Your task to perform on an android device: change text size in settings app Image 0: 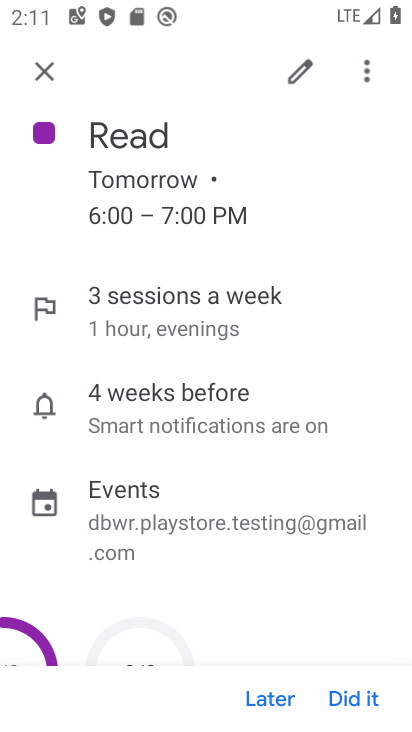
Step 0: press home button
Your task to perform on an android device: change text size in settings app Image 1: 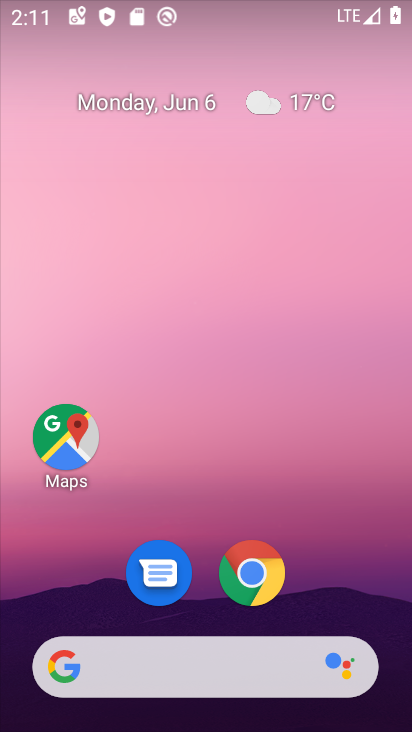
Step 1: drag from (351, 591) to (360, 190)
Your task to perform on an android device: change text size in settings app Image 2: 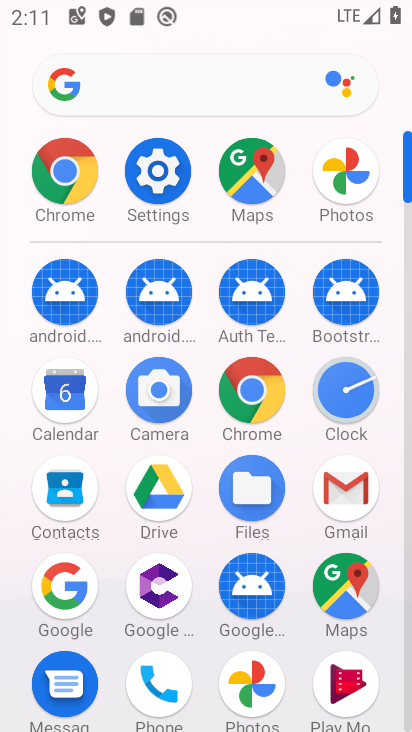
Step 2: click (152, 186)
Your task to perform on an android device: change text size in settings app Image 3: 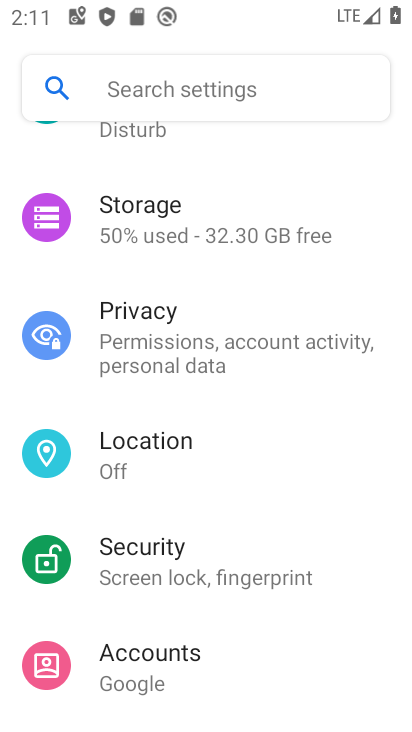
Step 3: drag from (336, 431) to (336, 479)
Your task to perform on an android device: change text size in settings app Image 4: 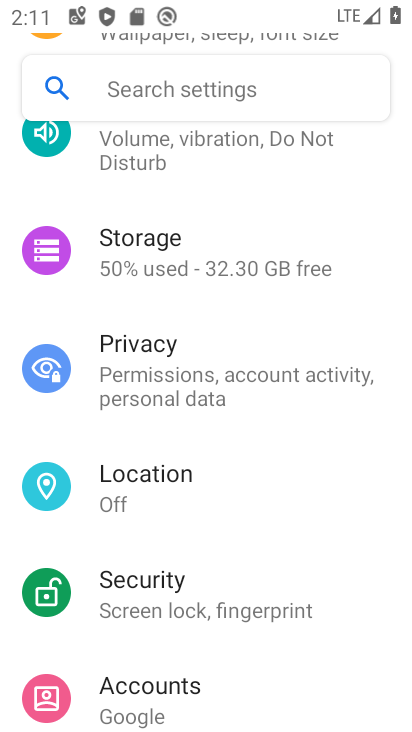
Step 4: drag from (358, 344) to (365, 541)
Your task to perform on an android device: change text size in settings app Image 5: 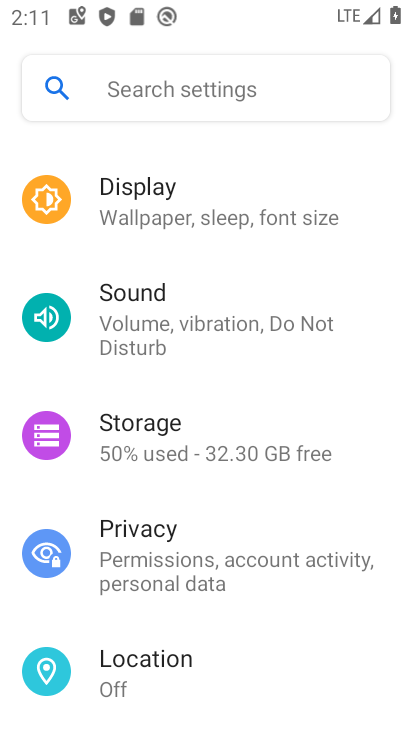
Step 5: drag from (351, 401) to (370, 577)
Your task to perform on an android device: change text size in settings app Image 6: 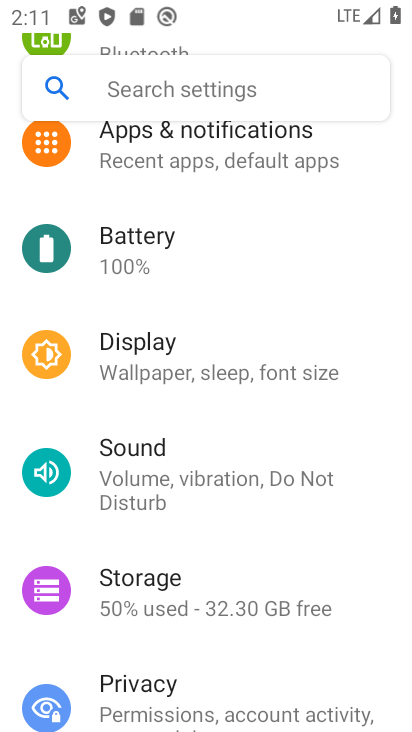
Step 6: drag from (373, 323) to (363, 547)
Your task to perform on an android device: change text size in settings app Image 7: 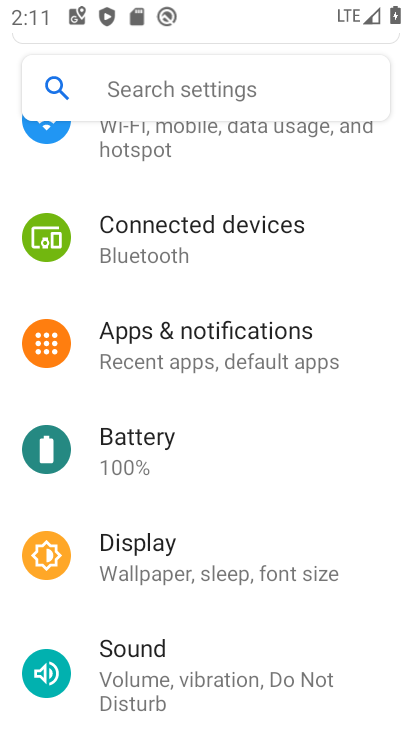
Step 7: click (253, 590)
Your task to perform on an android device: change text size in settings app Image 8: 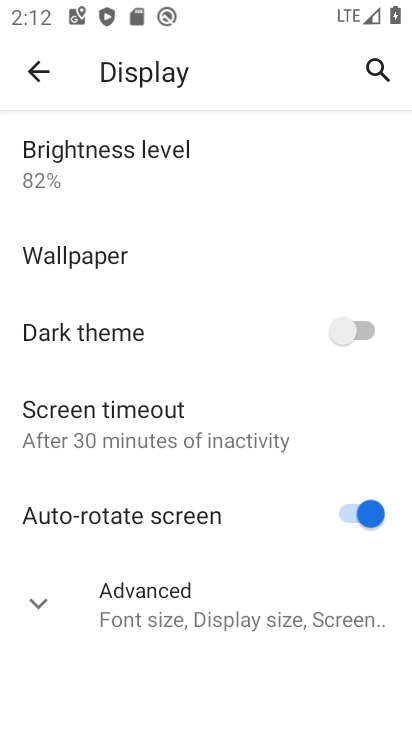
Step 8: click (241, 607)
Your task to perform on an android device: change text size in settings app Image 9: 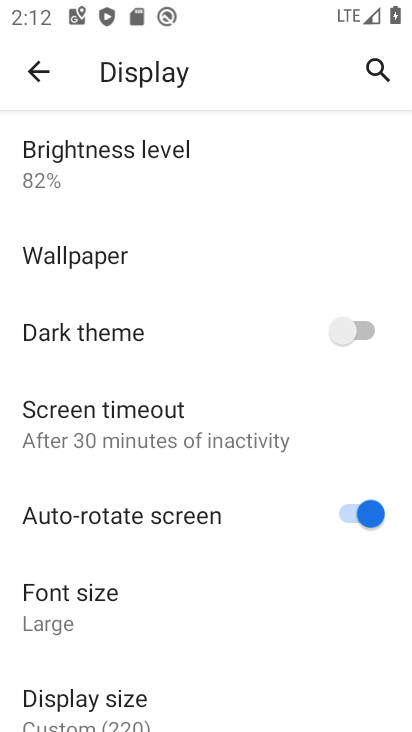
Step 9: click (111, 613)
Your task to perform on an android device: change text size in settings app Image 10: 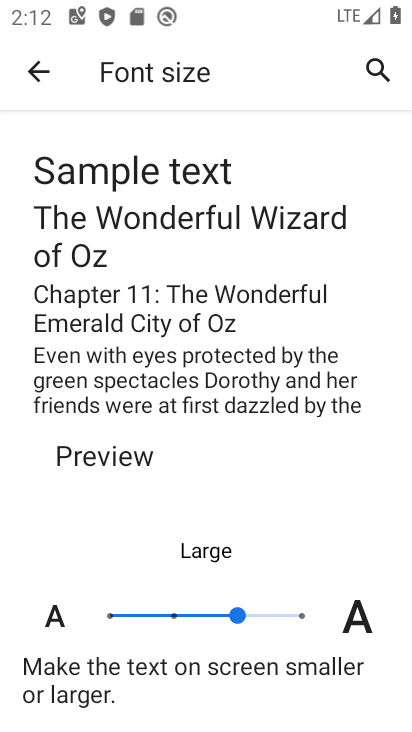
Step 10: click (175, 613)
Your task to perform on an android device: change text size in settings app Image 11: 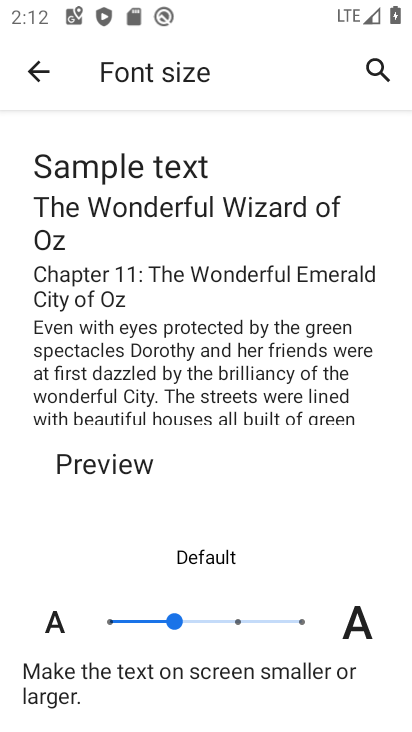
Step 11: task complete